Your task to perform on an android device: See recent photos Image 0: 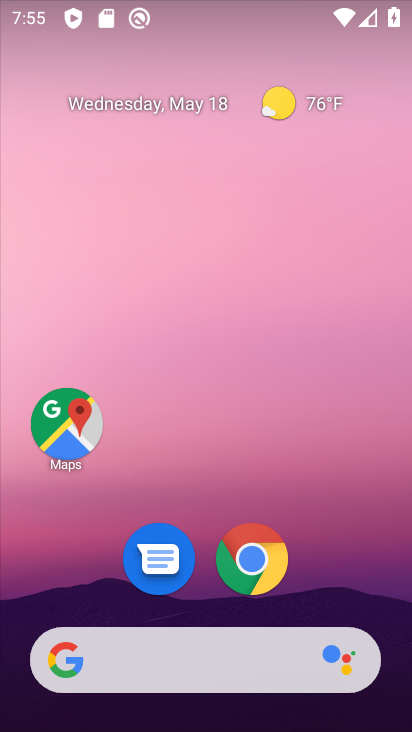
Step 0: drag from (213, 585) to (253, 64)
Your task to perform on an android device: See recent photos Image 1: 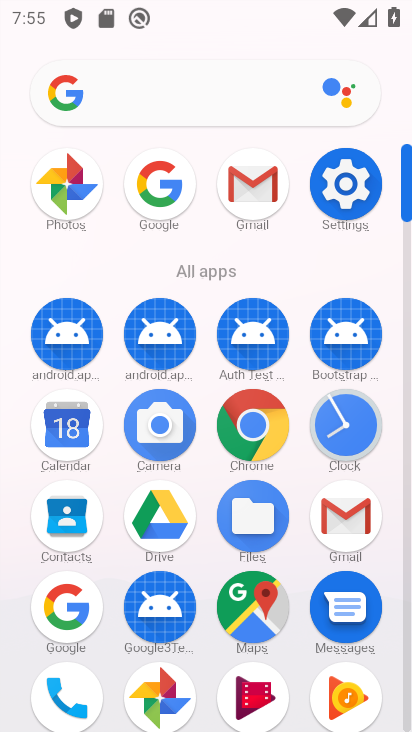
Step 1: click (66, 185)
Your task to perform on an android device: See recent photos Image 2: 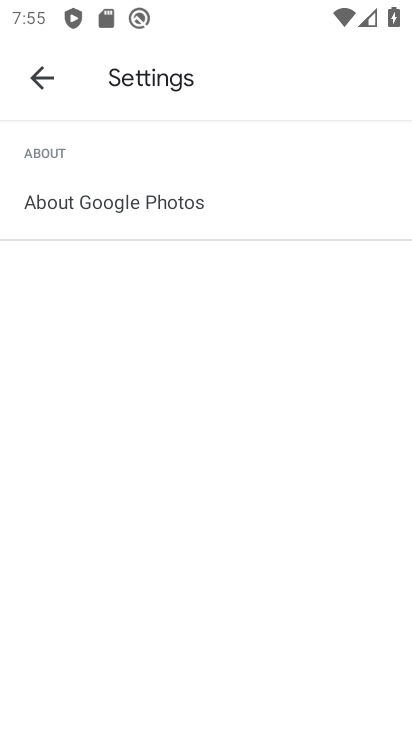
Step 2: press back button
Your task to perform on an android device: See recent photos Image 3: 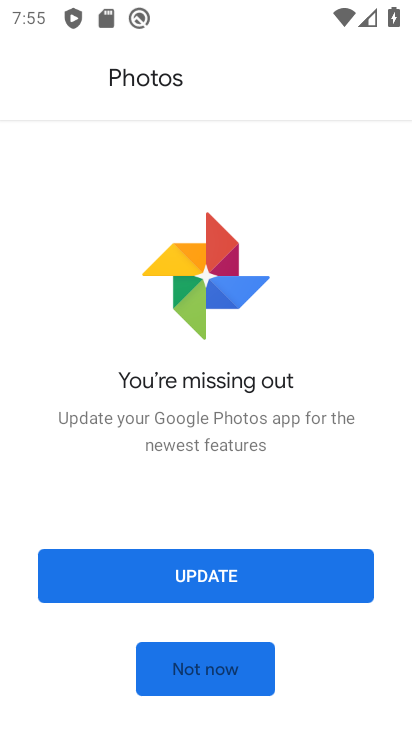
Step 3: click (188, 573)
Your task to perform on an android device: See recent photos Image 4: 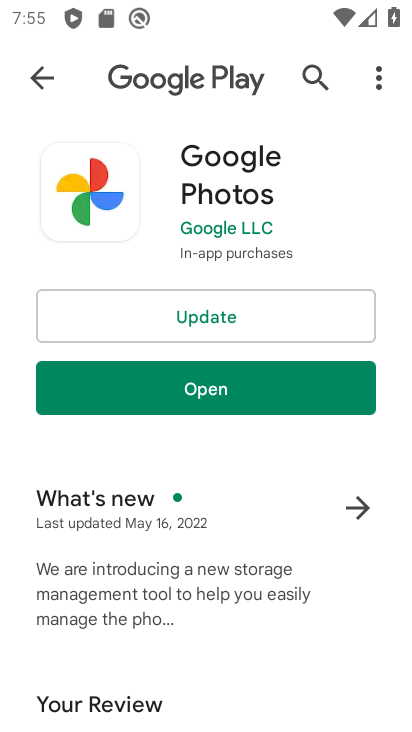
Step 4: click (185, 315)
Your task to perform on an android device: See recent photos Image 5: 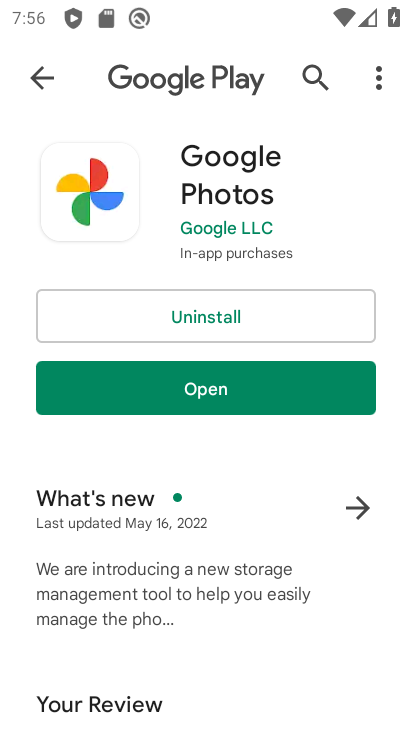
Step 5: click (210, 392)
Your task to perform on an android device: See recent photos Image 6: 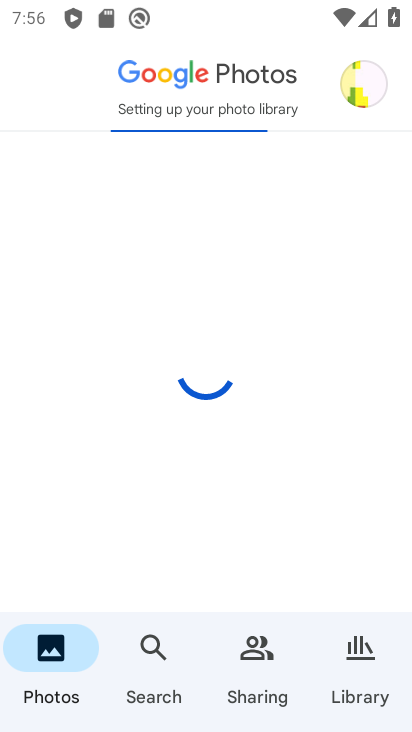
Step 6: task complete